Your task to perform on an android device: What's the weather going to be this weekend? Image 0: 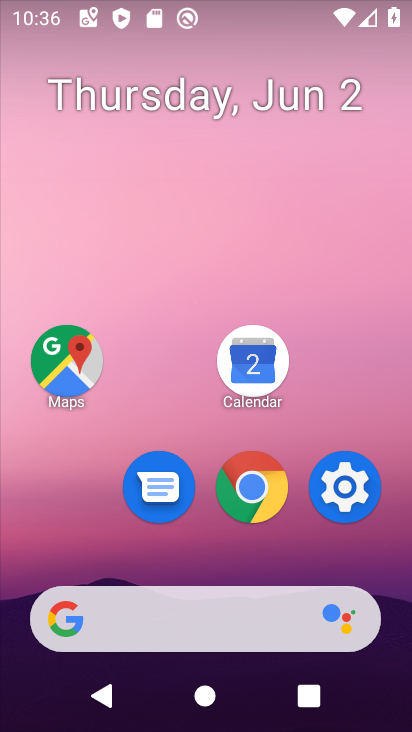
Step 0: drag from (240, 638) to (316, 118)
Your task to perform on an android device: What's the weather going to be this weekend? Image 1: 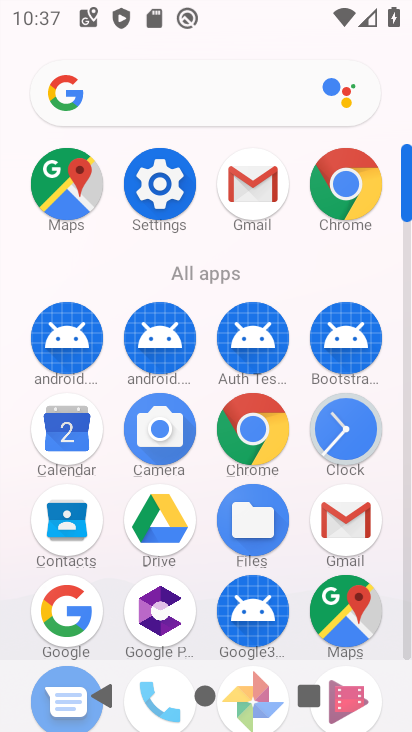
Step 1: click (189, 111)
Your task to perform on an android device: What's the weather going to be this weekend? Image 2: 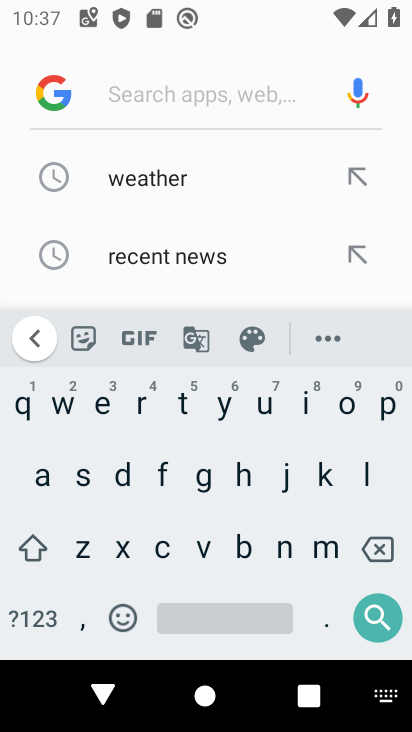
Step 2: click (149, 178)
Your task to perform on an android device: What's the weather going to be this weekend? Image 3: 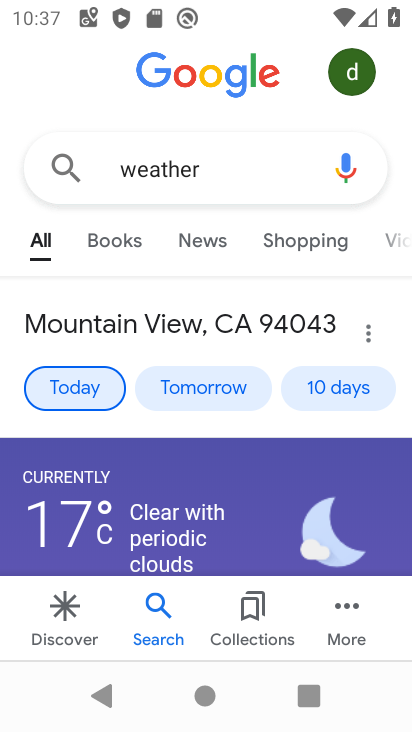
Step 3: click (321, 382)
Your task to perform on an android device: What's the weather going to be this weekend? Image 4: 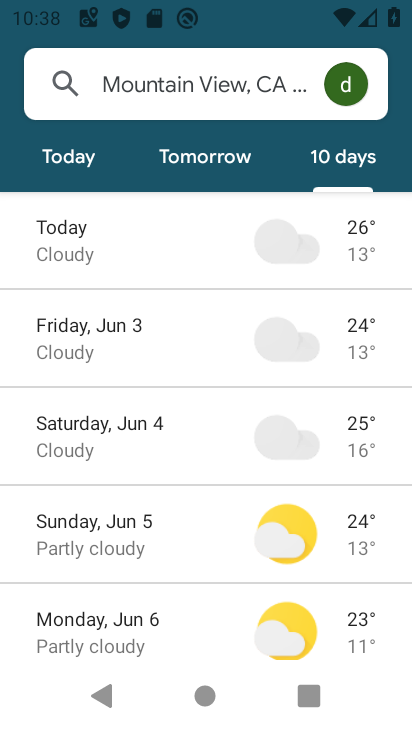
Step 4: task complete